Your task to perform on an android device: Open Android settings Image 0: 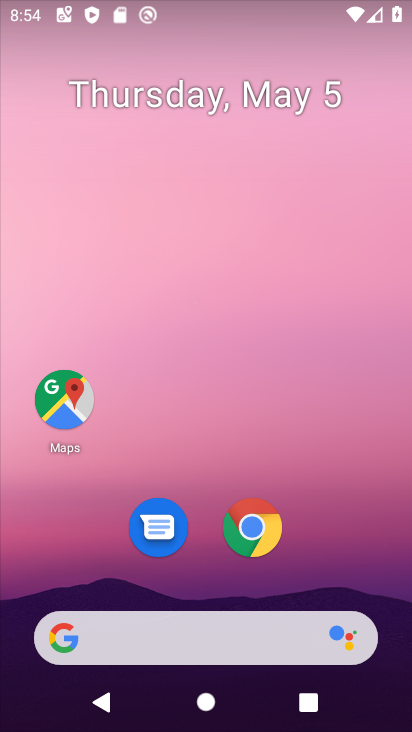
Step 0: click (278, 701)
Your task to perform on an android device: Open Android settings Image 1: 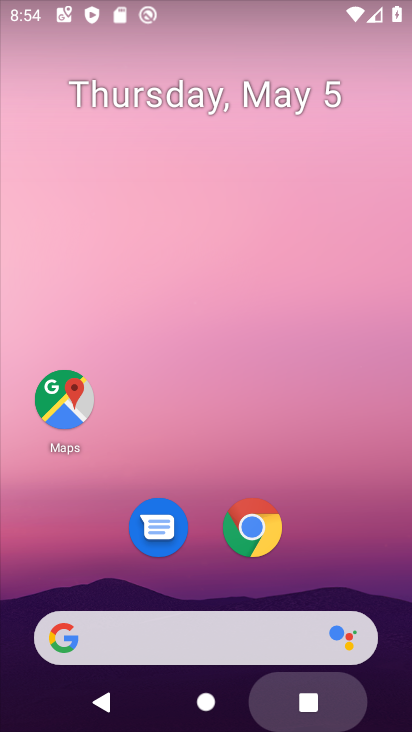
Step 1: drag from (368, 586) to (153, 98)
Your task to perform on an android device: Open Android settings Image 2: 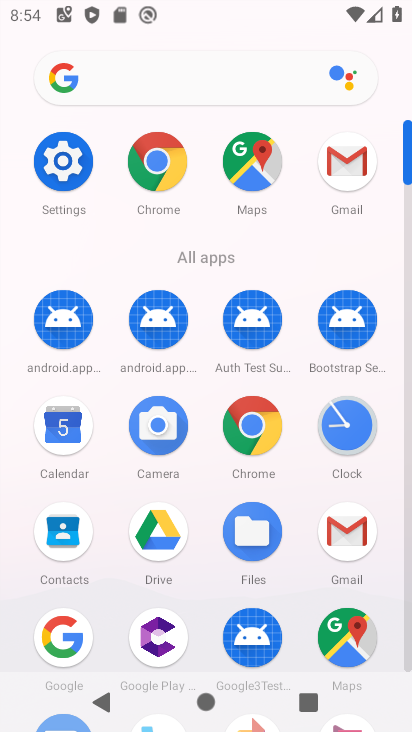
Step 2: click (160, 325)
Your task to perform on an android device: Open Android settings Image 3: 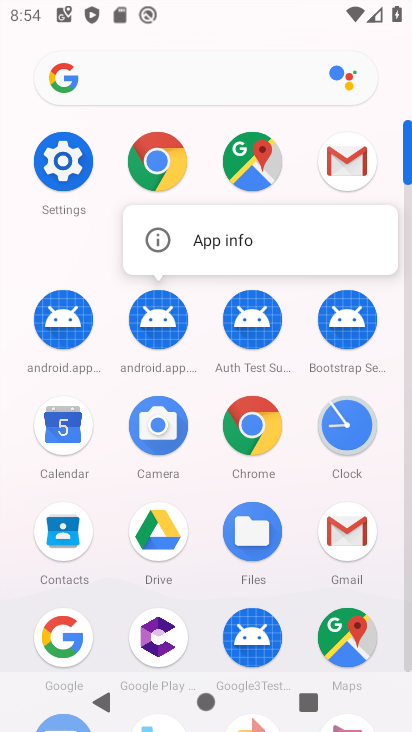
Step 3: click (160, 325)
Your task to perform on an android device: Open Android settings Image 4: 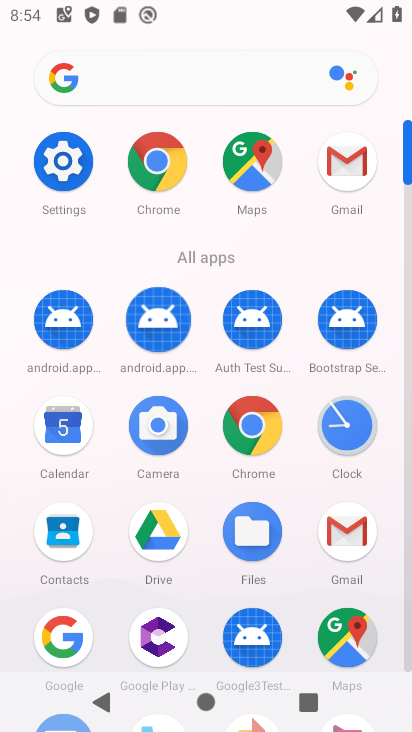
Step 4: click (160, 325)
Your task to perform on an android device: Open Android settings Image 5: 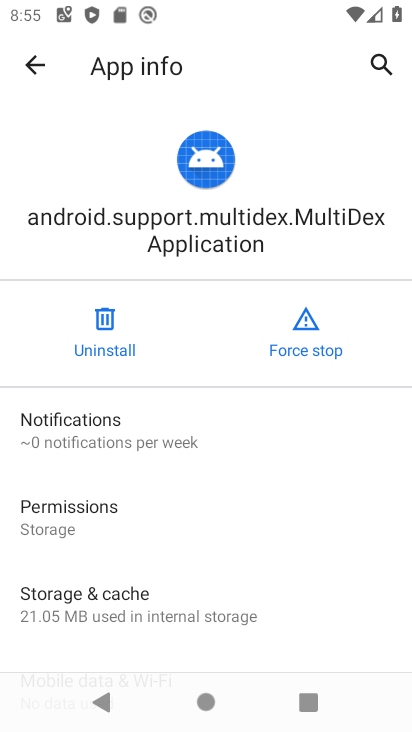
Step 5: click (161, 560)
Your task to perform on an android device: Open Android settings Image 6: 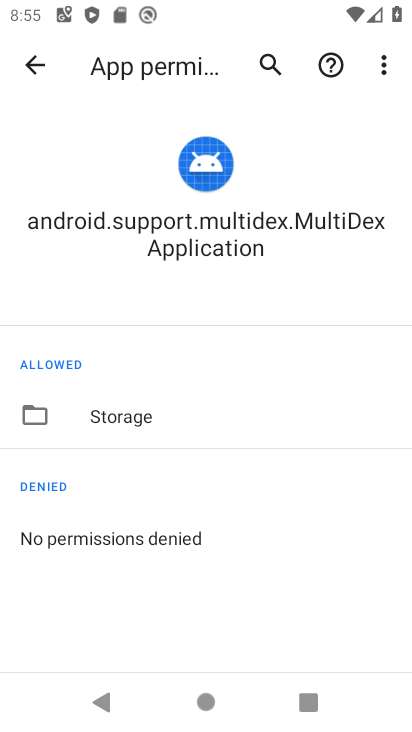
Step 6: click (25, 59)
Your task to perform on an android device: Open Android settings Image 7: 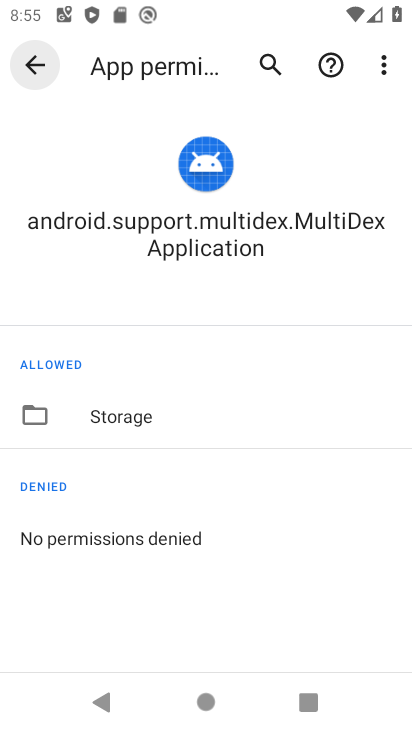
Step 7: click (25, 59)
Your task to perform on an android device: Open Android settings Image 8: 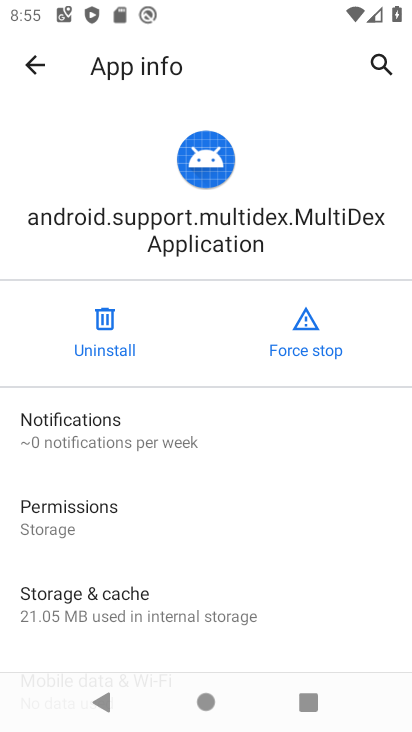
Step 8: task complete